Your task to perform on an android device: Clear the cart on amazon. Search for sony triple a on amazon, select the first entry, and add it to the cart. Image 0: 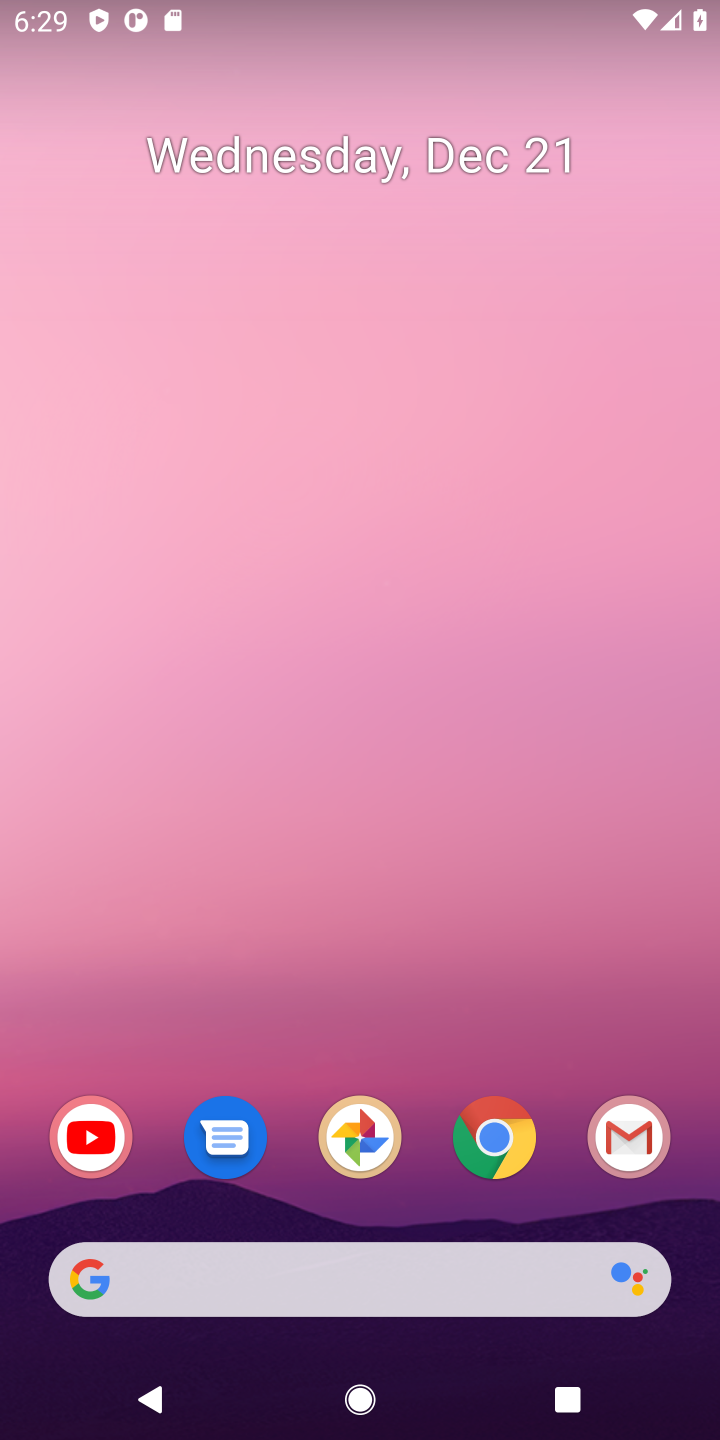
Step 0: click (489, 1140)
Your task to perform on an android device: Clear the cart on amazon. Search for sony triple a on amazon, select the first entry, and add it to the cart. Image 1: 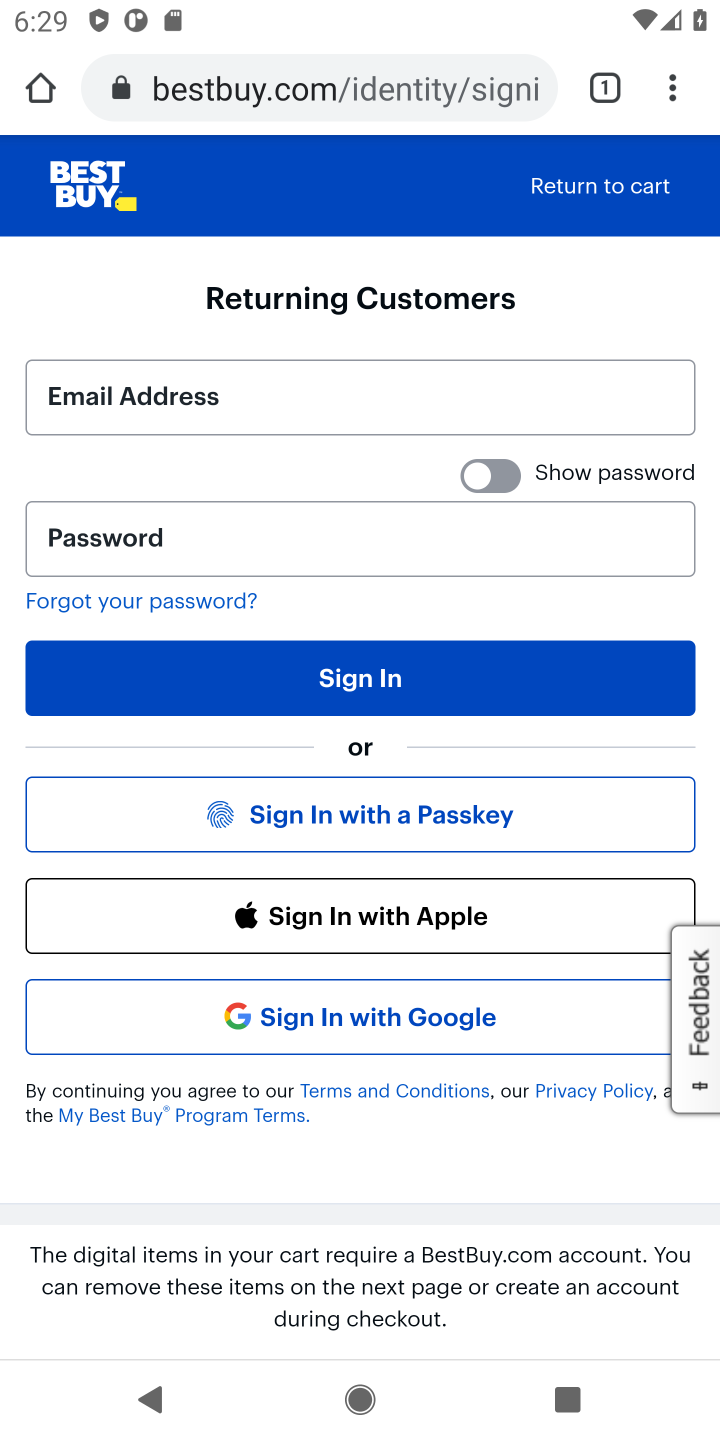
Step 1: click (258, 99)
Your task to perform on an android device: Clear the cart on amazon. Search for sony triple a on amazon, select the first entry, and add it to the cart. Image 2: 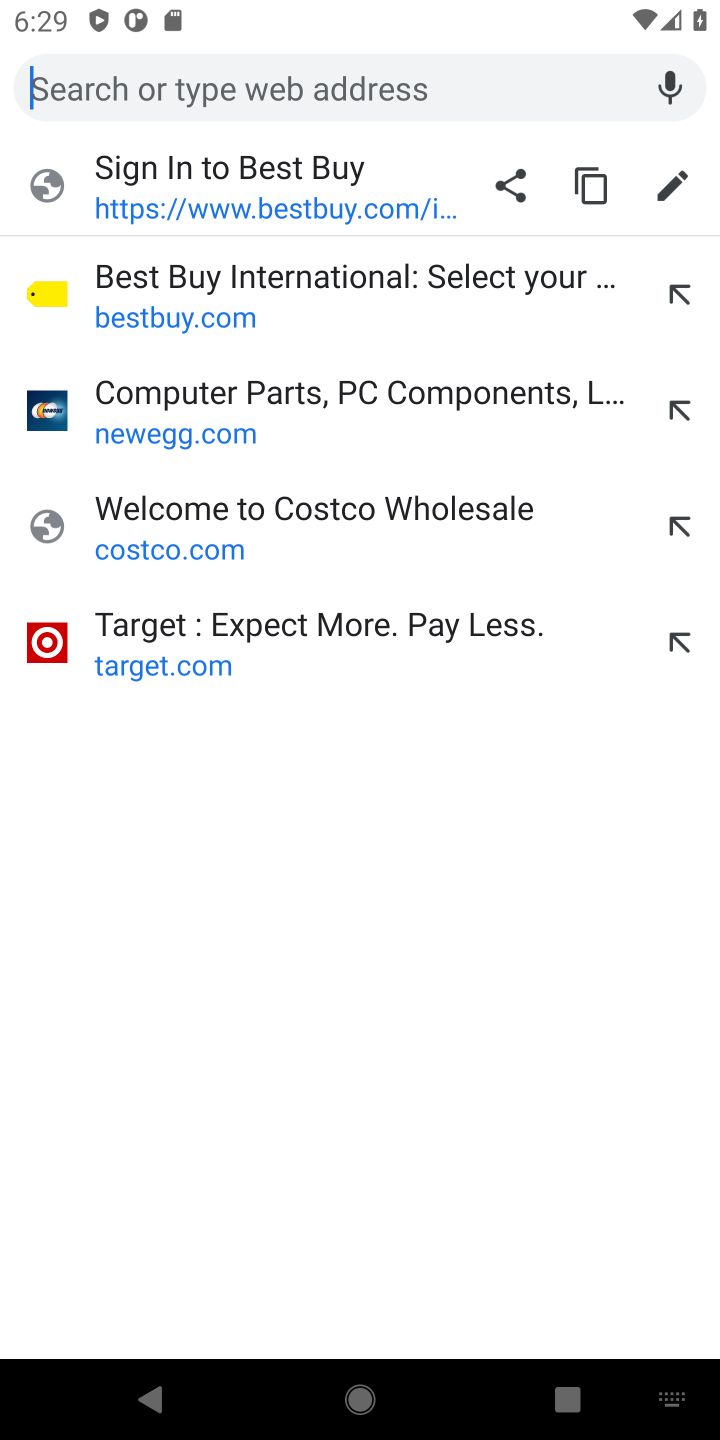
Step 2: type "amazon.com"
Your task to perform on an android device: Clear the cart on amazon. Search for sony triple a on amazon, select the first entry, and add it to the cart. Image 3: 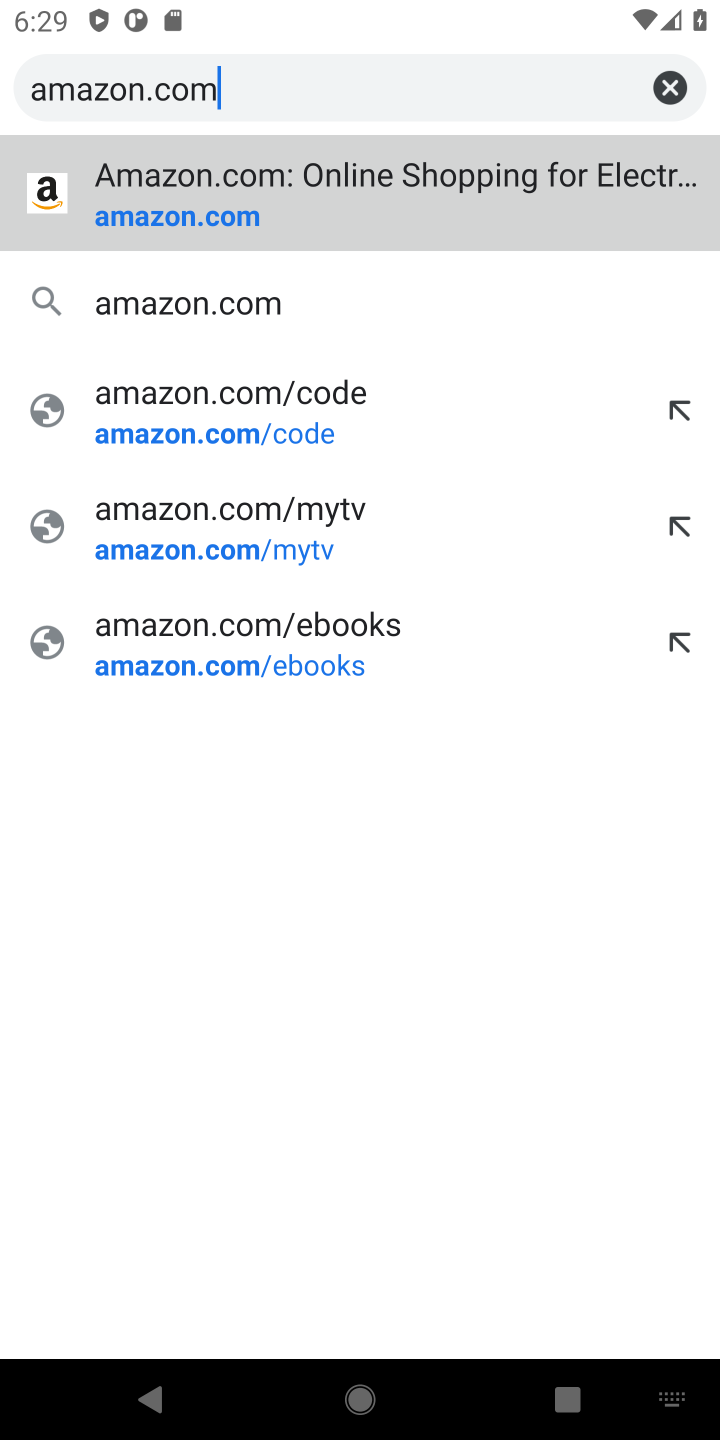
Step 3: click (169, 214)
Your task to perform on an android device: Clear the cart on amazon. Search for sony triple a on amazon, select the first entry, and add it to the cart. Image 4: 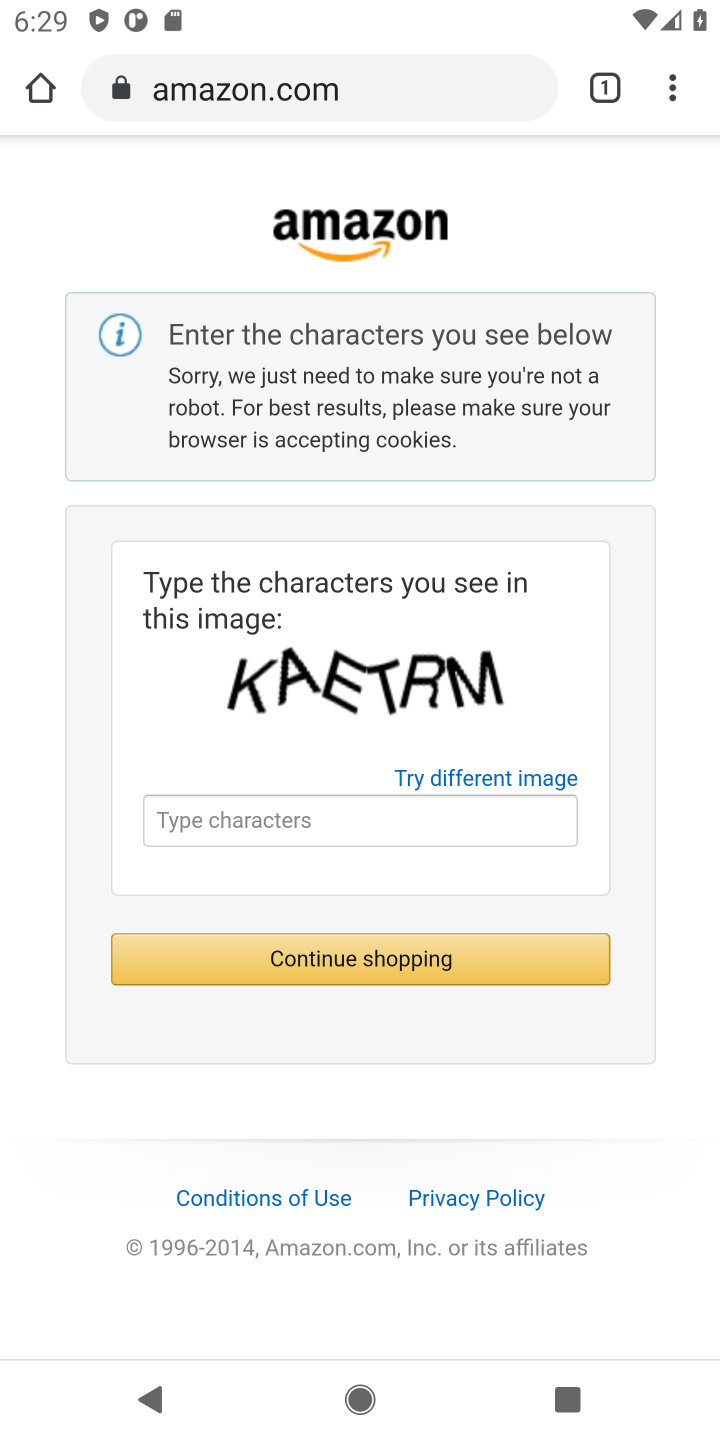
Step 4: click (215, 804)
Your task to perform on an android device: Clear the cart on amazon. Search for sony triple a on amazon, select the first entry, and add it to the cart. Image 5: 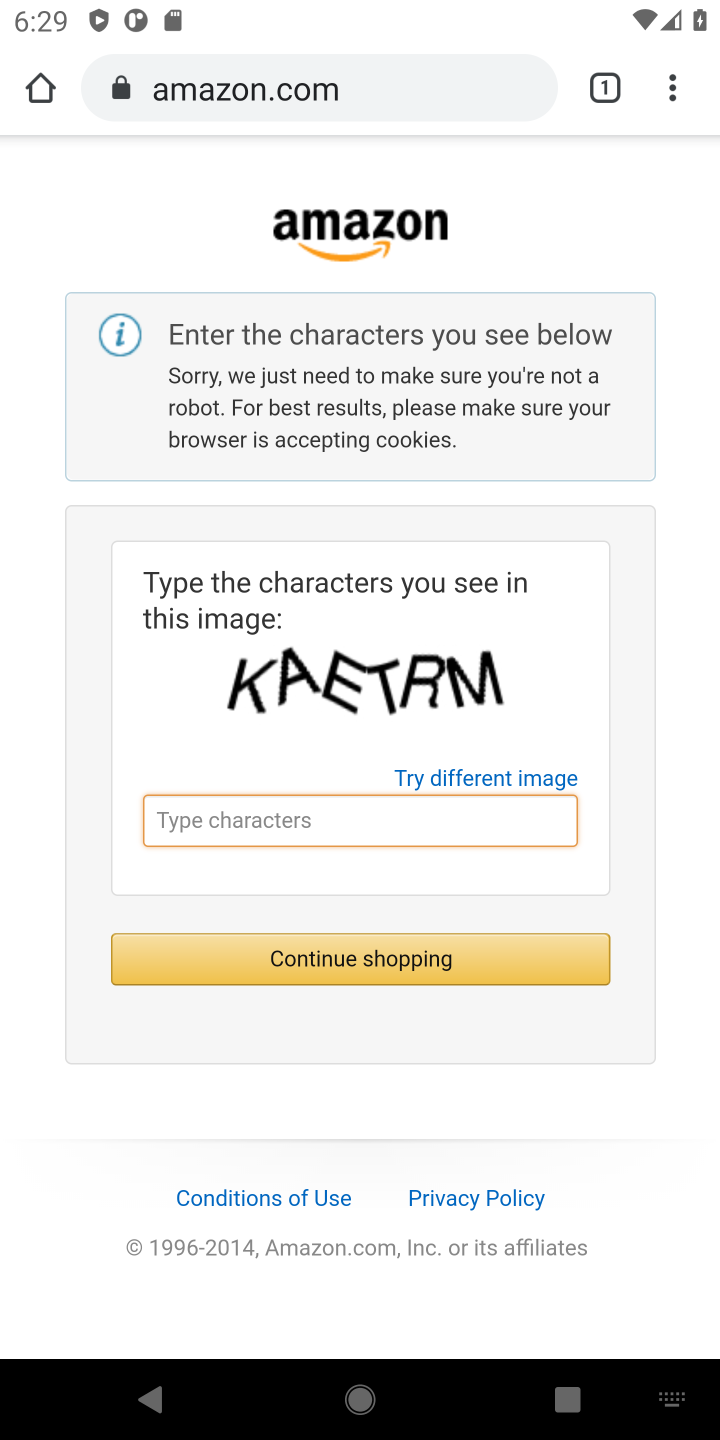
Step 5: type "KAETRM"
Your task to perform on an android device: Clear the cart on amazon. Search for sony triple a on amazon, select the first entry, and add it to the cart. Image 6: 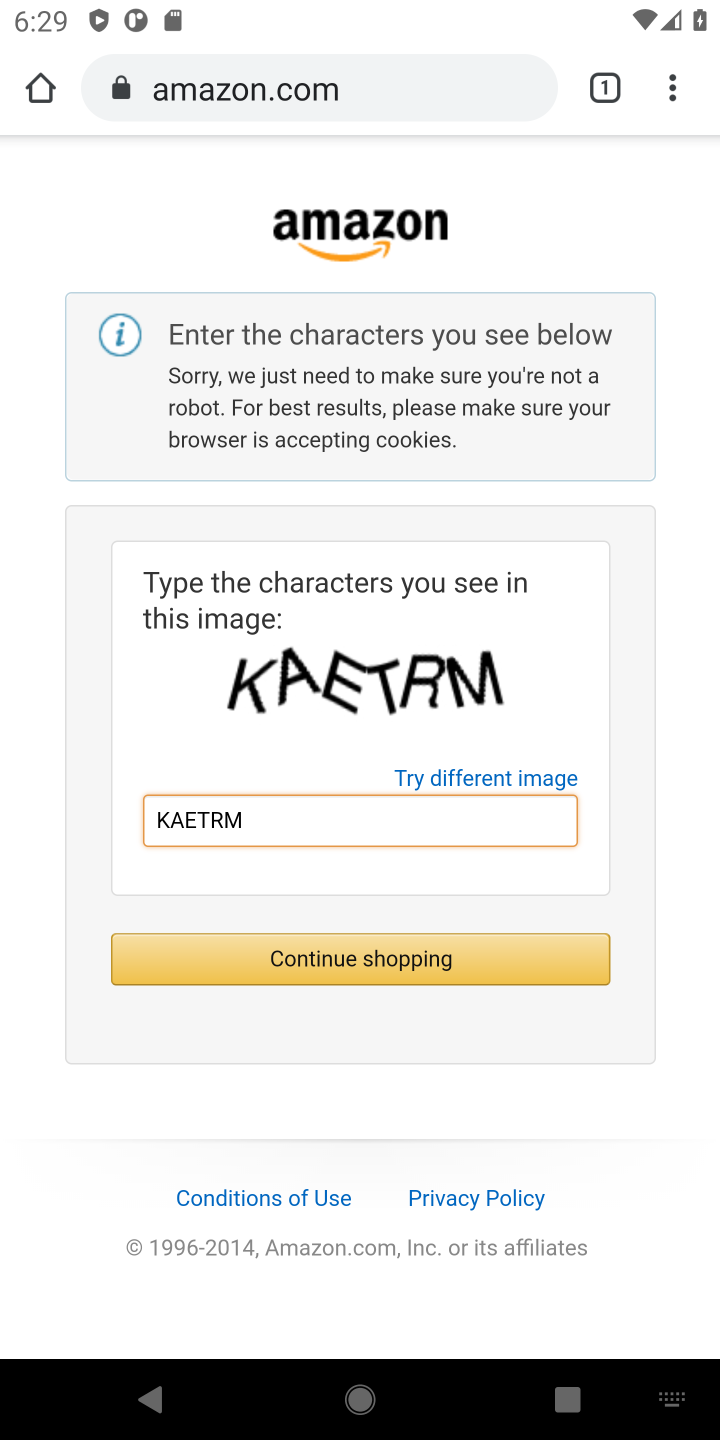
Step 6: click (333, 970)
Your task to perform on an android device: Clear the cart on amazon. Search for sony triple a on amazon, select the first entry, and add it to the cart. Image 7: 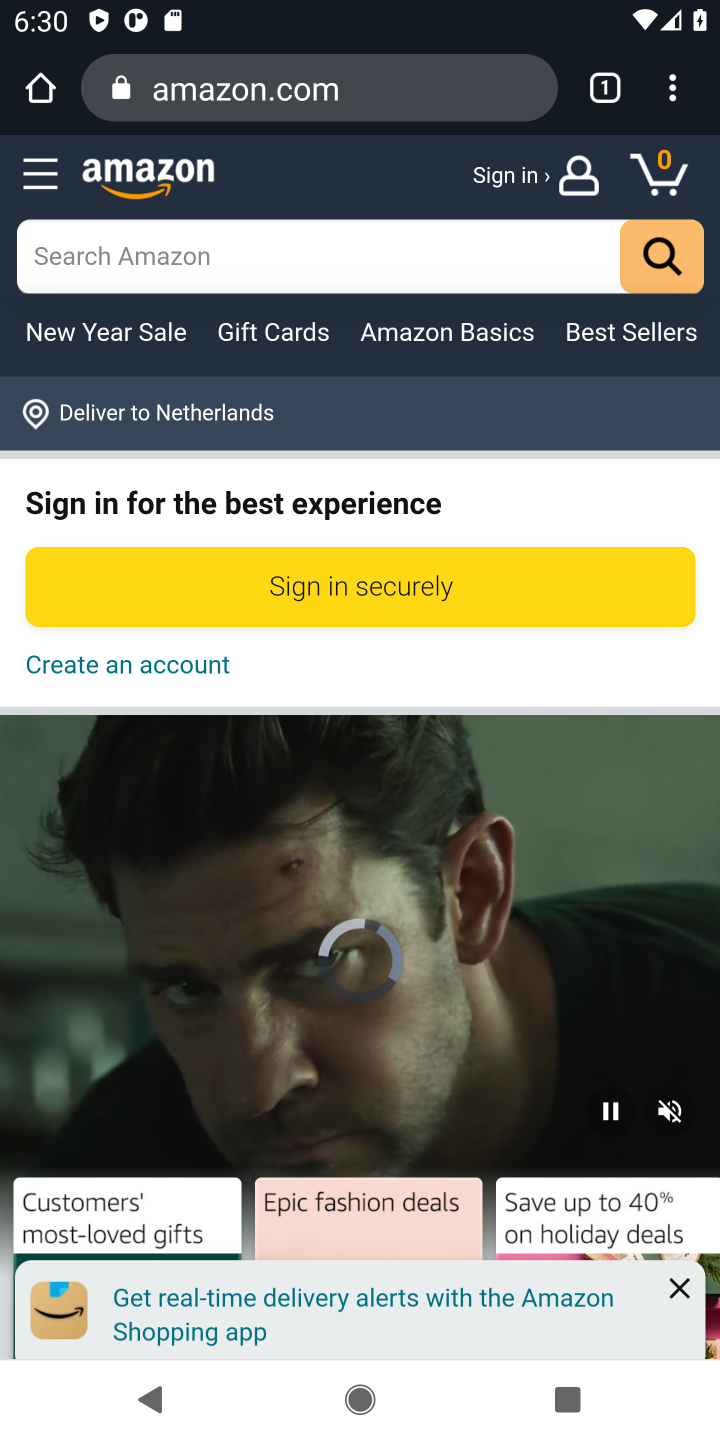
Step 7: click (660, 183)
Your task to perform on an android device: Clear the cart on amazon. Search for sony triple a on amazon, select the first entry, and add it to the cart. Image 8: 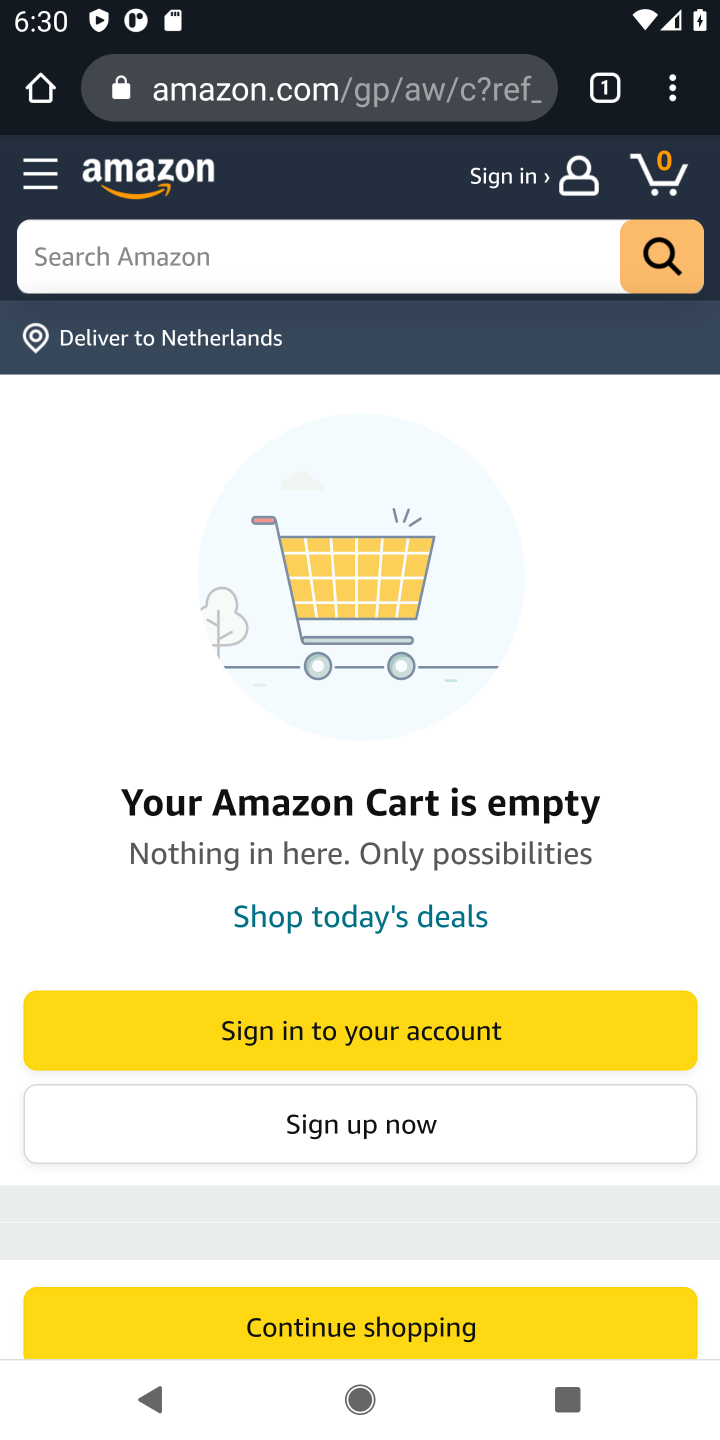
Step 8: click (131, 256)
Your task to perform on an android device: Clear the cart on amazon. Search for sony triple a on amazon, select the first entry, and add it to the cart. Image 9: 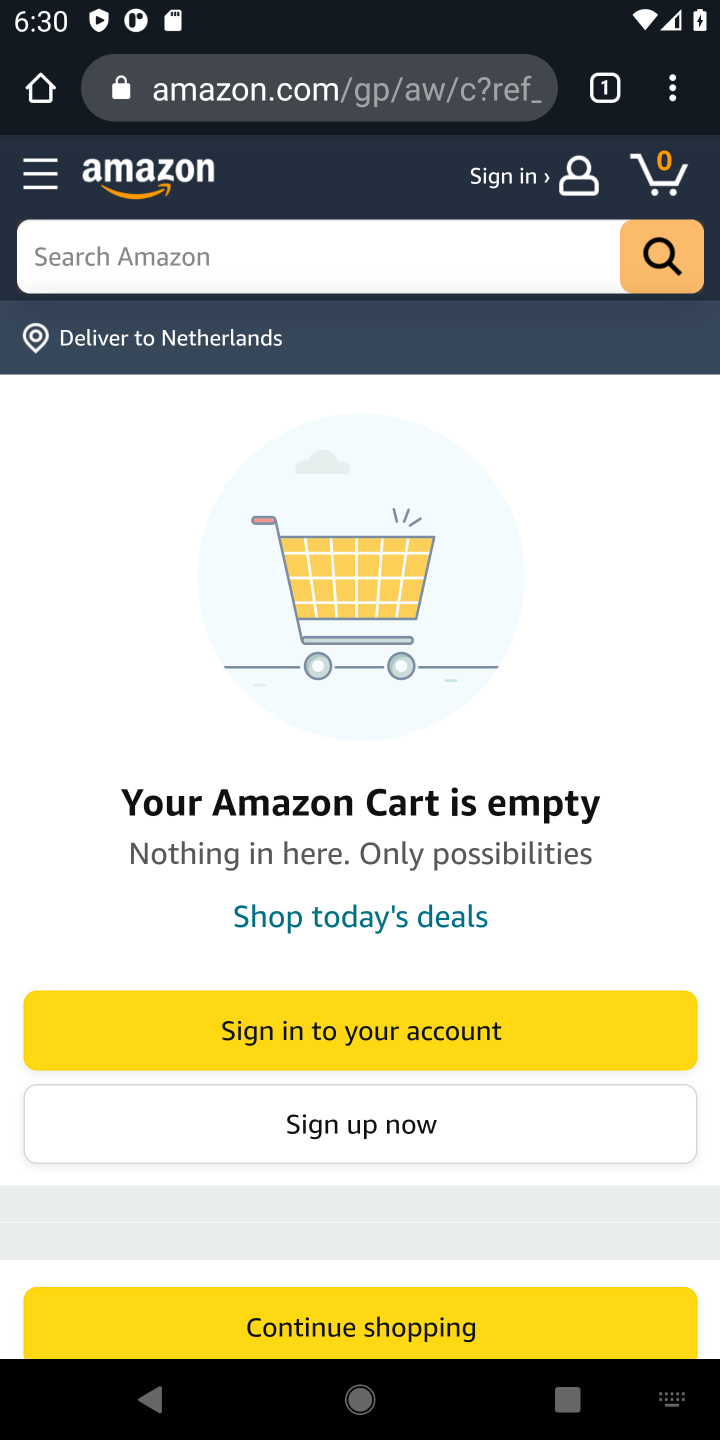
Step 9: type "sony triple a"
Your task to perform on an android device: Clear the cart on amazon. Search for sony triple a on amazon, select the first entry, and add it to the cart. Image 10: 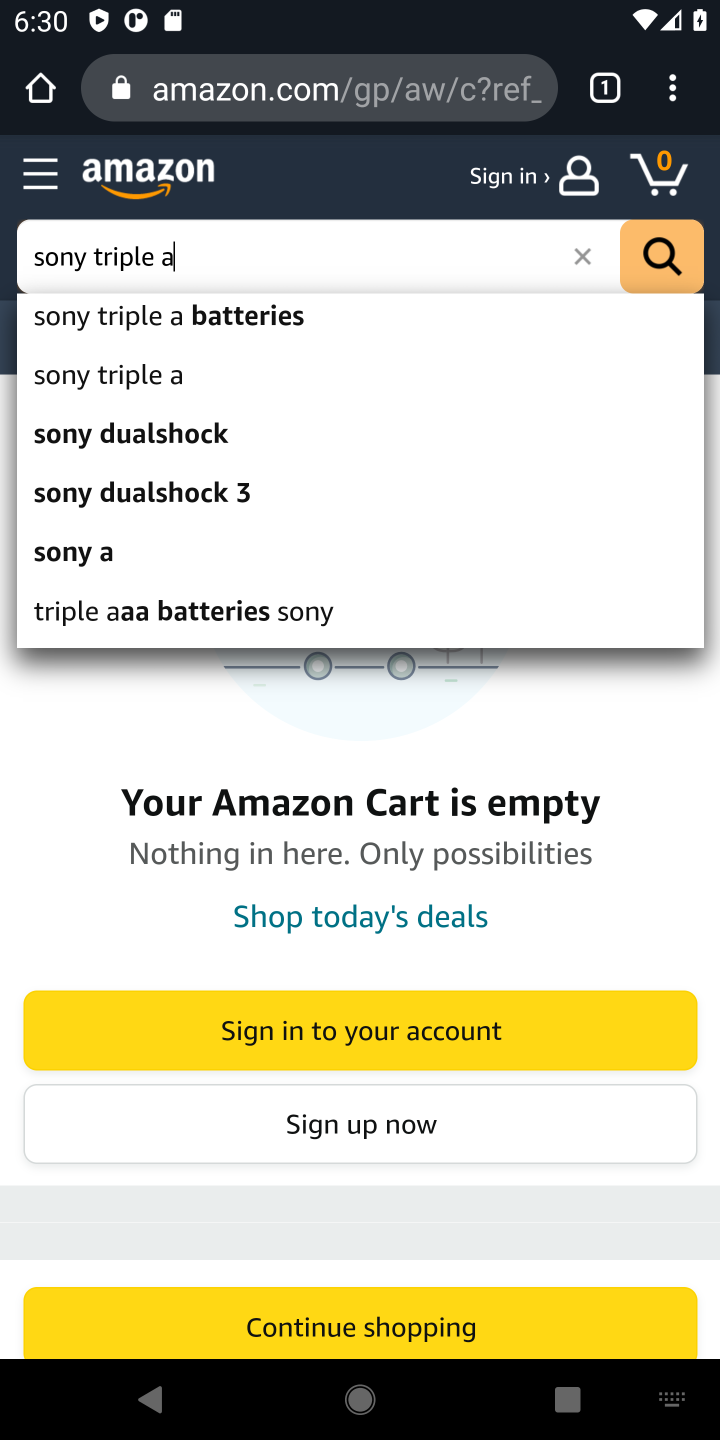
Step 10: click (162, 326)
Your task to perform on an android device: Clear the cart on amazon. Search for sony triple a on amazon, select the first entry, and add it to the cart. Image 11: 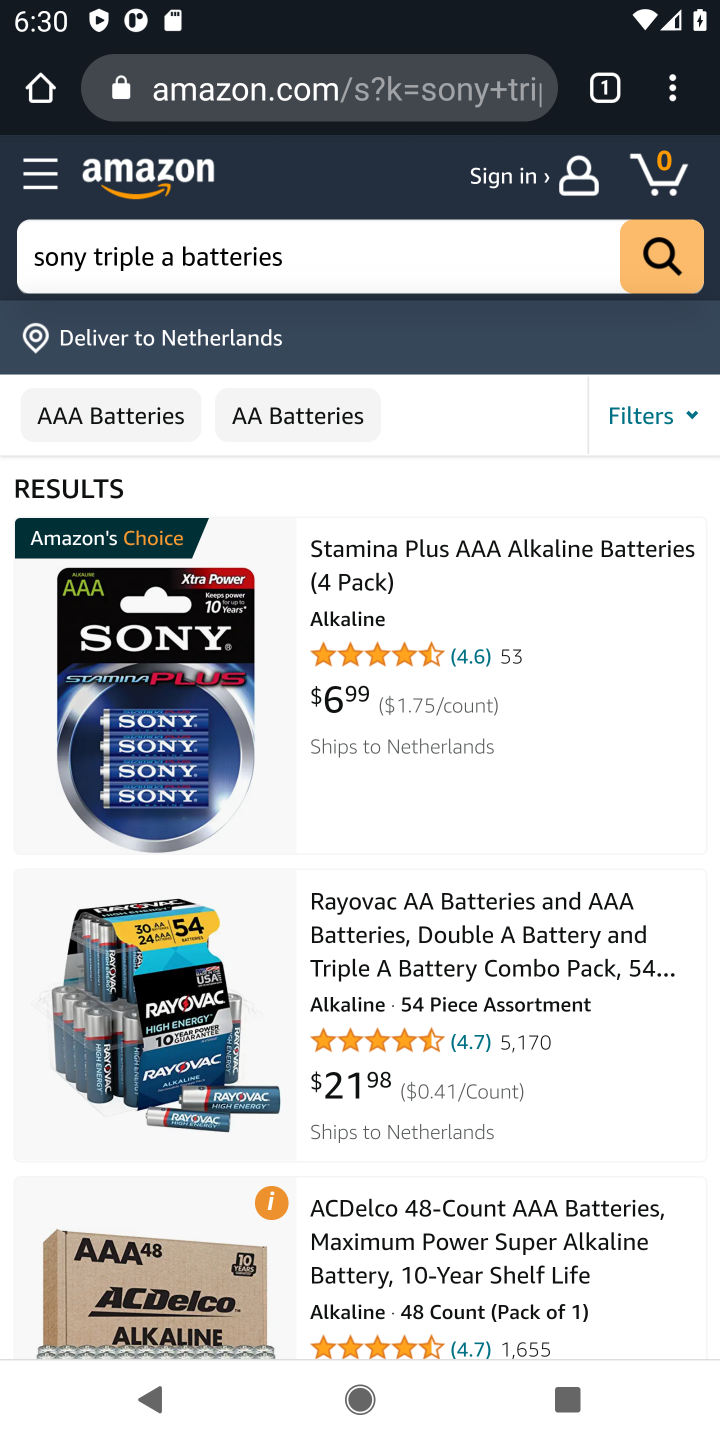
Step 11: click (340, 567)
Your task to perform on an android device: Clear the cart on amazon. Search for sony triple a on amazon, select the first entry, and add it to the cart. Image 12: 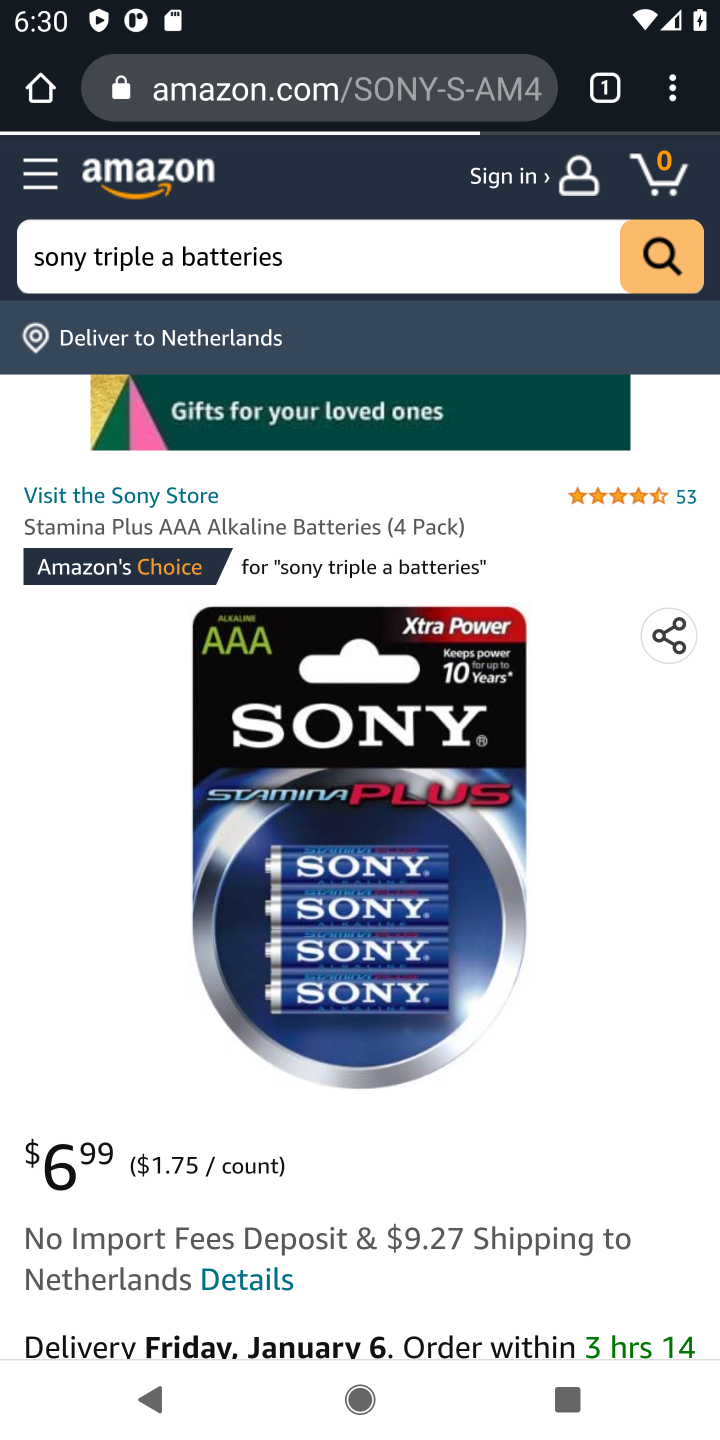
Step 12: drag from (328, 911) to (338, 417)
Your task to perform on an android device: Clear the cart on amazon. Search for sony triple a on amazon, select the first entry, and add it to the cart. Image 13: 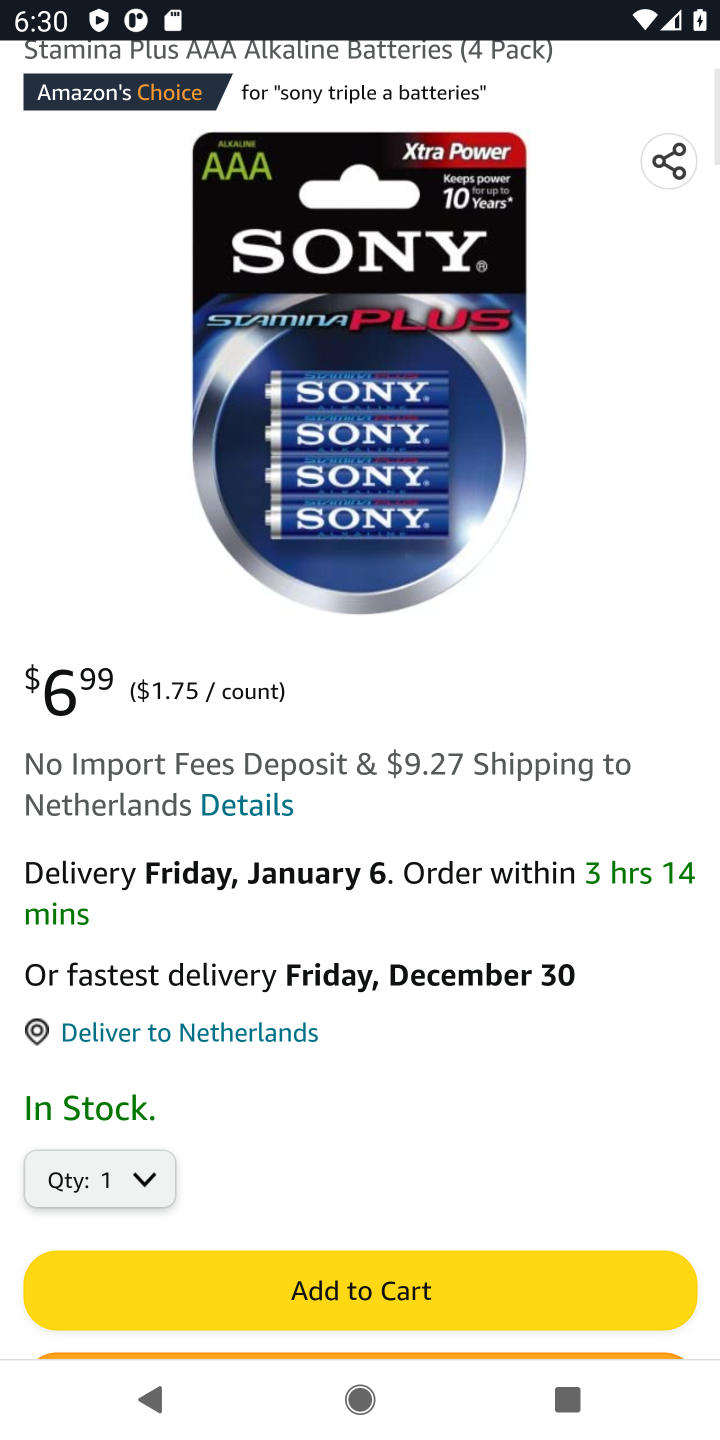
Step 13: drag from (287, 1056) to (324, 597)
Your task to perform on an android device: Clear the cart on amazon. Search for sony triple a on amazon, select the first entry, and add it to the cart. Image 14: 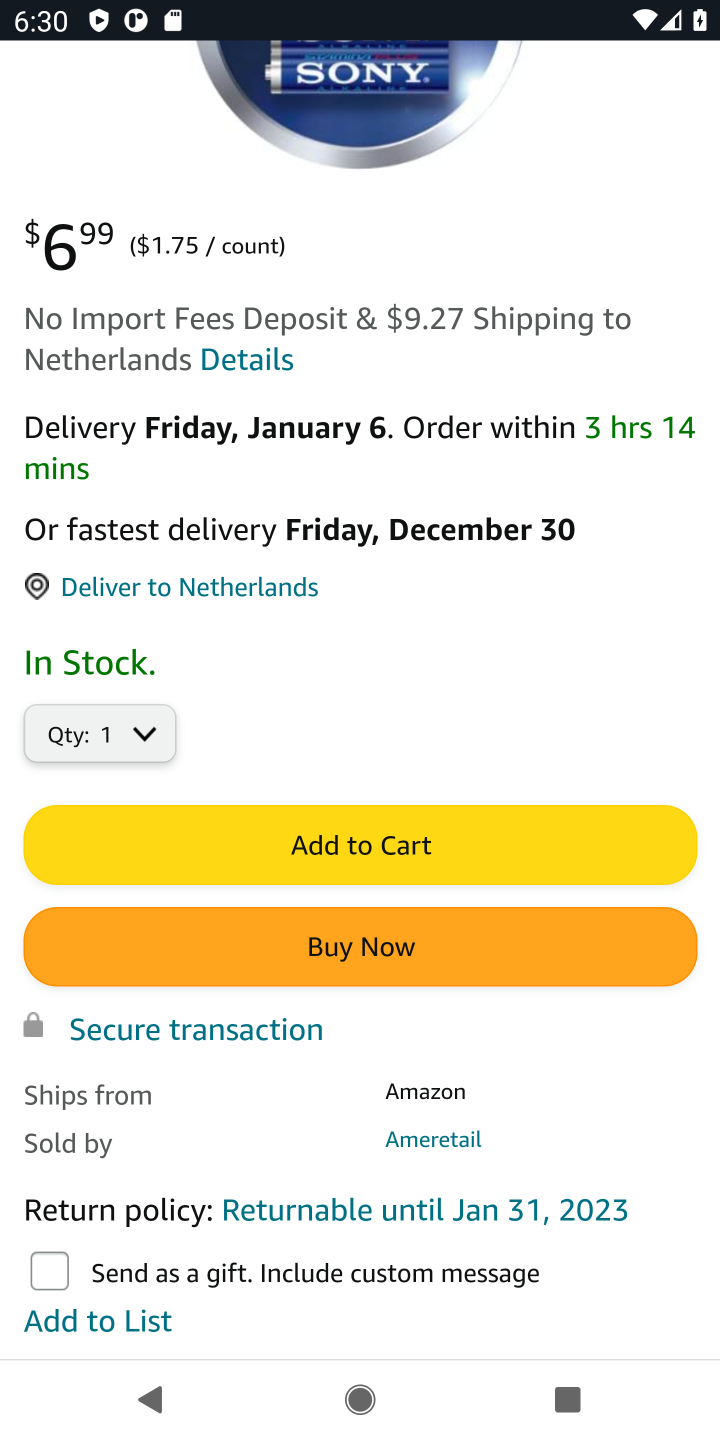
Step 14: click (326, 849)
Your task to perform on an android device: Clear the cart on amazon. Search for sony triple a on amazon, select the first entry, and add it to the cart. Image 15: 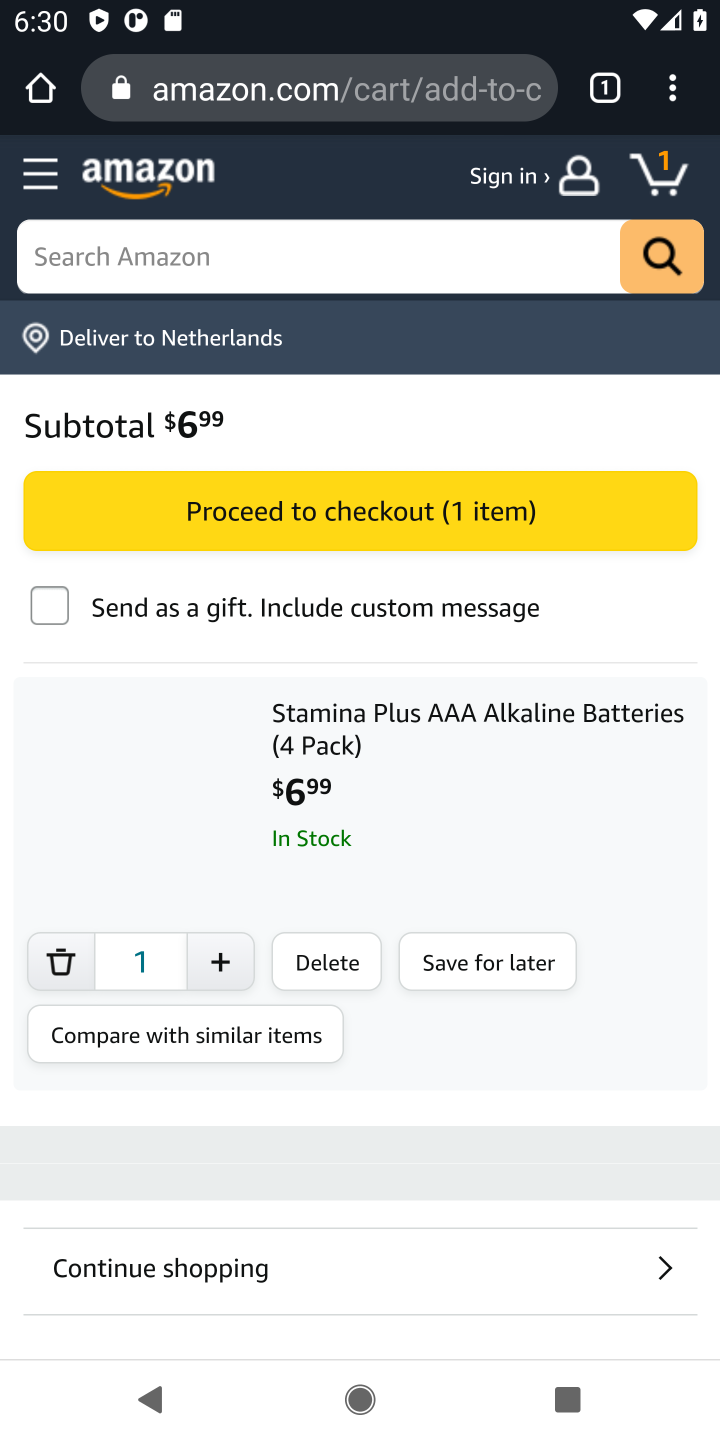
Step 15: task complete